Your task to perform on an android device: toggle javascript in the chrome app Image 0: 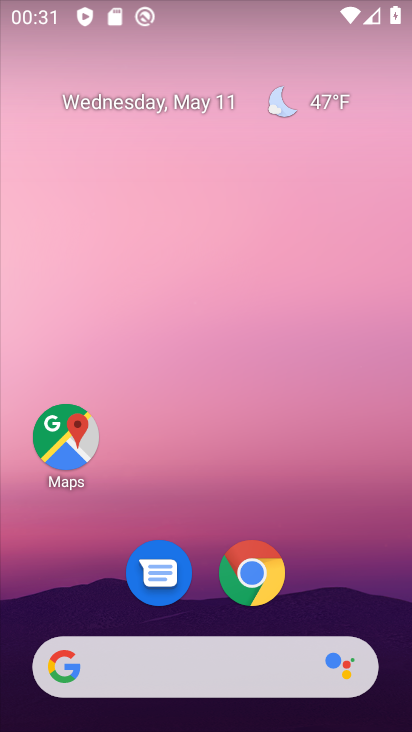
Step 0: task complete